Your task to perform on an android device: Show me popular games on the Play Store Image 0: 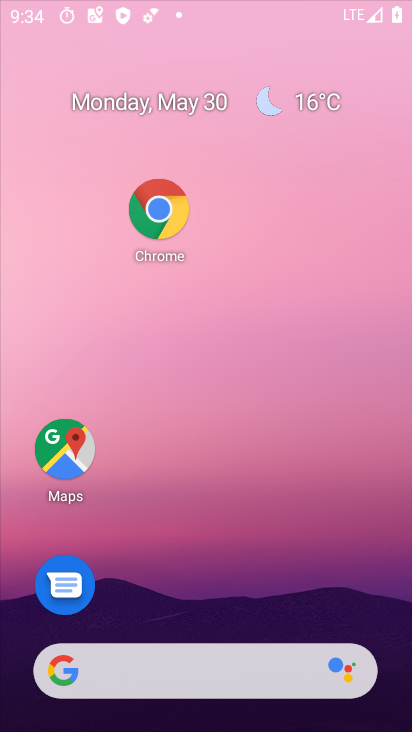
Step 0: drag from (258, 518) to (363, 122)
Your task to perform on an android device: Show me popular games on the Play Store Image 1: 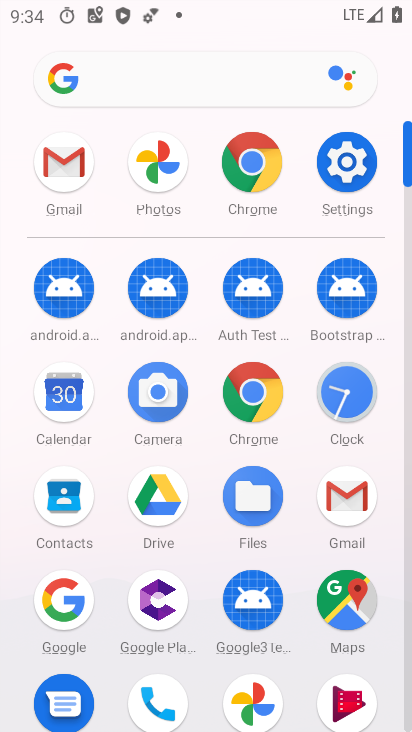
Step 1: drag from (205, 609) to (202, 325)
Your task to perform on an android device: Show me popular games on the Play Store Image 2: 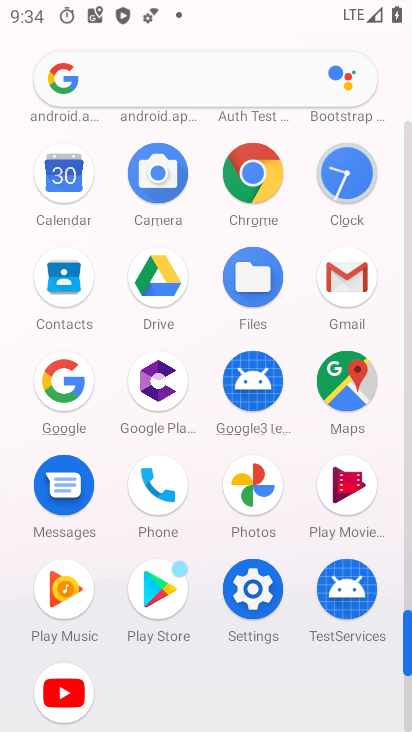
Step 2: click (165, 571)
Your task to perform on an android device: Show me popular games on the Play Store Image 3: 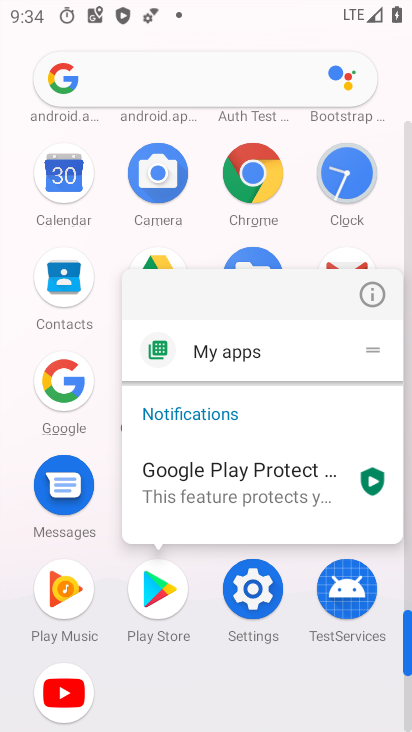
Step 3: click (364, 302)
Your task to perform on an android device: Show me popular games on the Play Store Image 4: 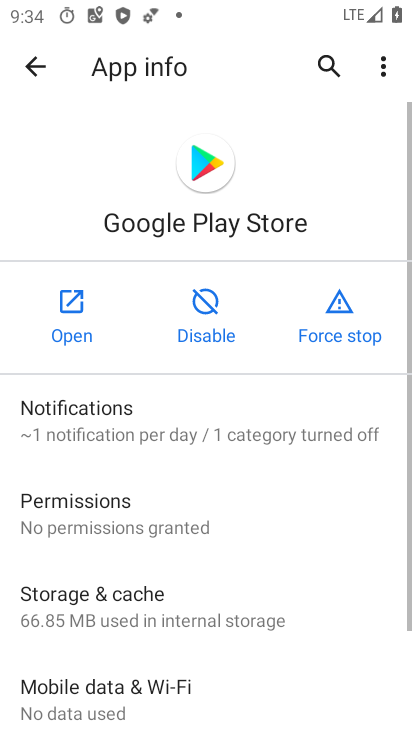
Step 4: click (77, 312)
Your task to perform on an android device: Show me popular games on the Play Store Image 5: 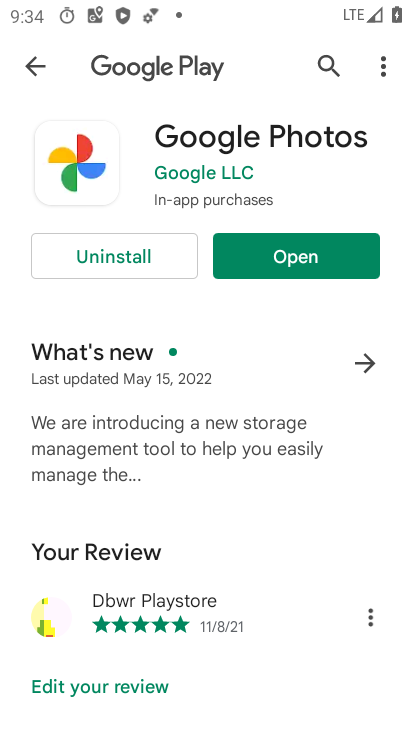
Step 5: click (32, 70)
Your task to perform on an android device: Show me popular games on the Play Store Image 6: 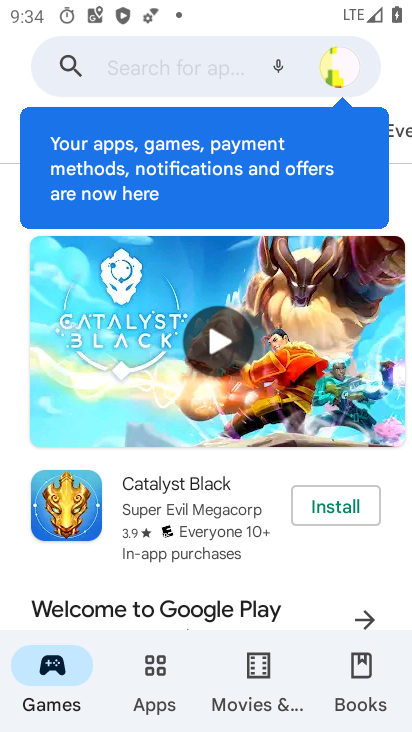
Step 6: drag from (230, 566) to (393, 2)
Your task to perform on an android device: Show me popular games on the Play Store Image 7: 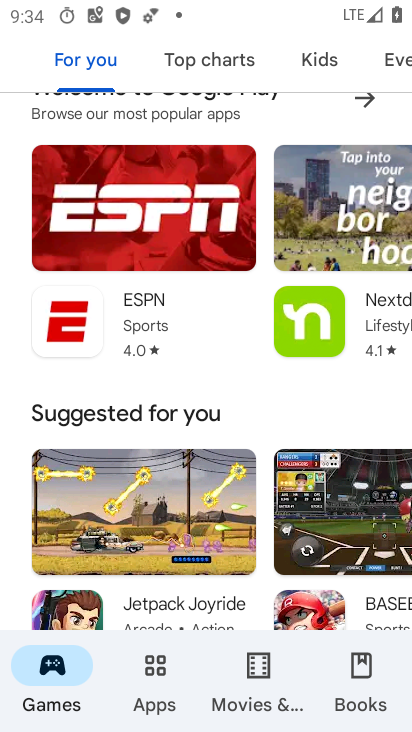
Step 7: drag from (250, 444) to (392, 3)
Your task to perform on an android device: Show me popular games on the Play Store Image 8: 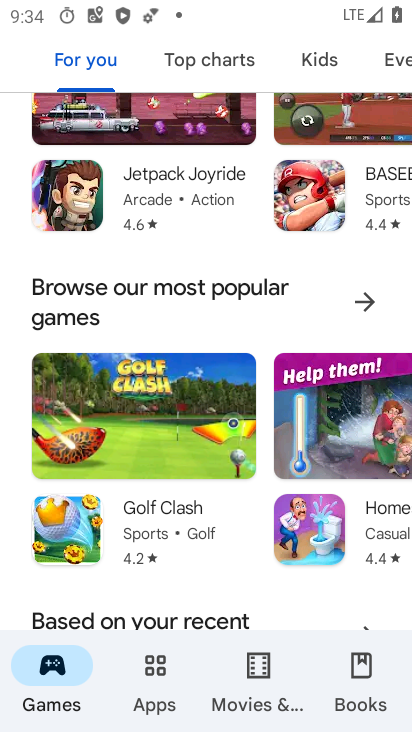
Step 8: click (355, 298)
Your task to perform on an android device: Show me popular games on the Play Store Image 9: 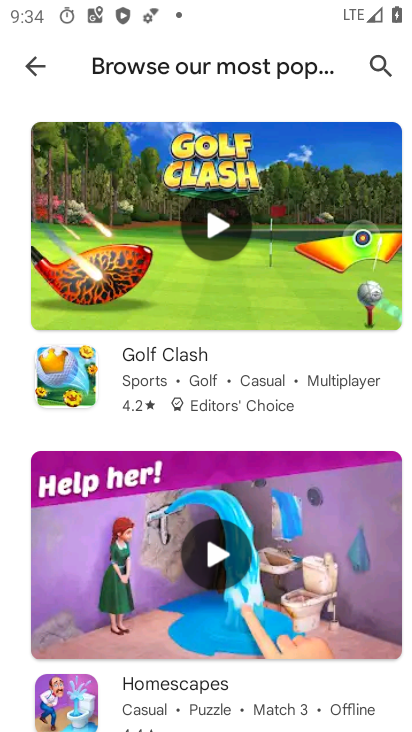
Step 9: task complete